Your task to perform on an android device: What's the weather going to be this weekend? Image 0: 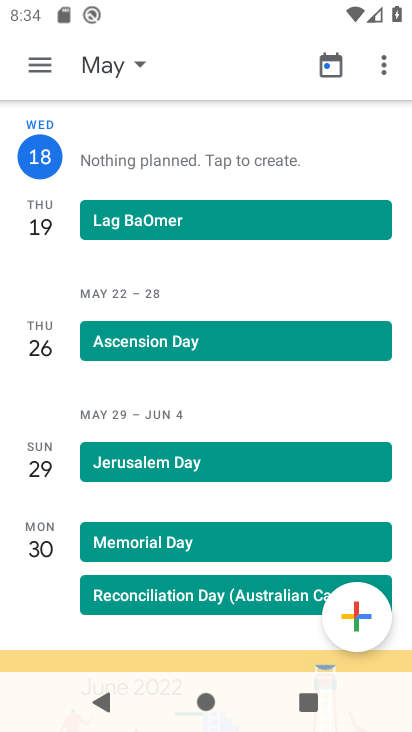
Step 0: press home button
Your task to perform on an android device: What's the weather going to be this weekend? Image 1: 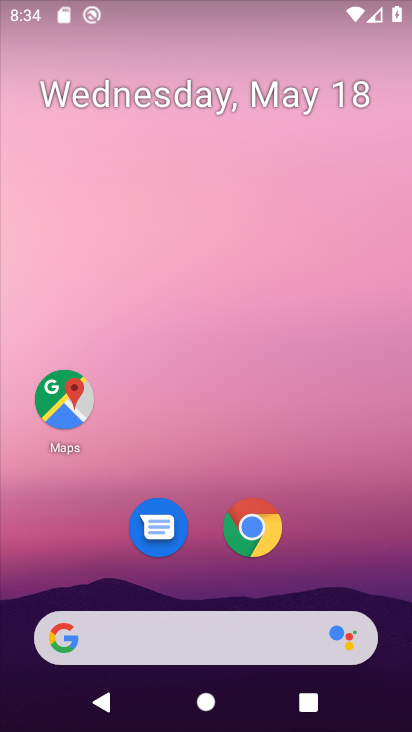
Step 1: drag from (308, 578) to (223, 1)
Your task to perform on an android device: What's the weather going to be this weekend? Image 2: 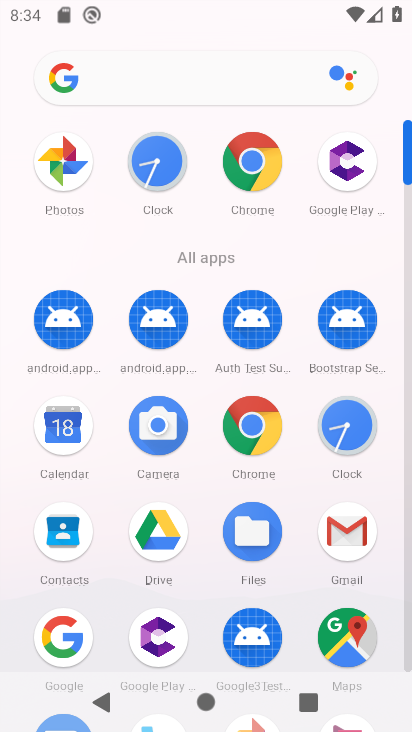
Step 2: click (70, 659)
Your task to perform on an android device: What's the weather going to be this weekend? Image 3: 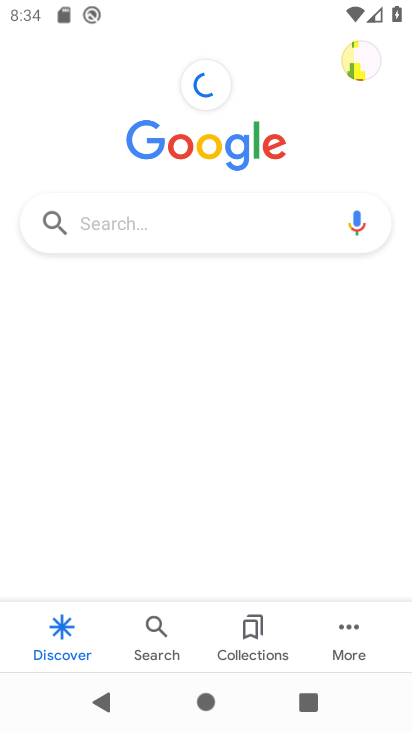
Step 3: click (154, 217)
Your task to perform on an android device: What's the weather going to be this weekend? Image 4: 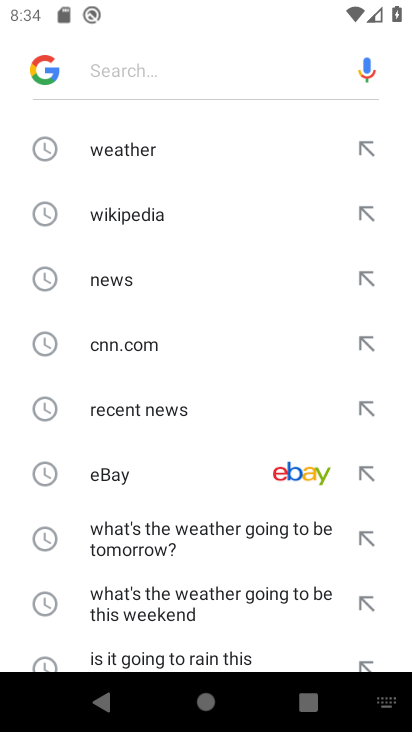
Step 4: click (135, 154)
Your task to perform on an android device: What's the weather going to be this weekend? Image 5: 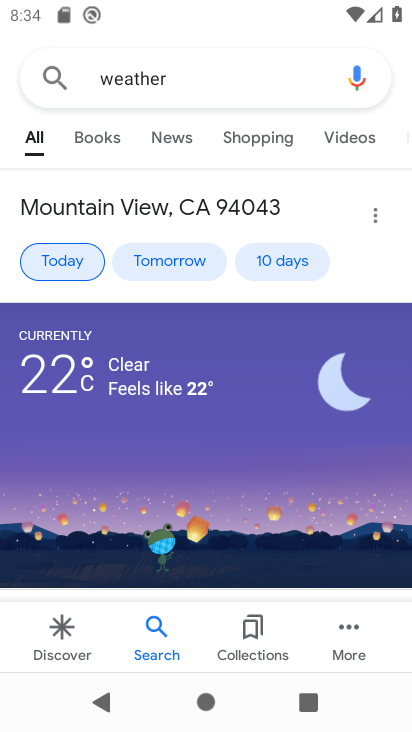
Step 5: click (196, 265)
Your task to perform on an android device: What's the weather going to be this weekend? Image 6: 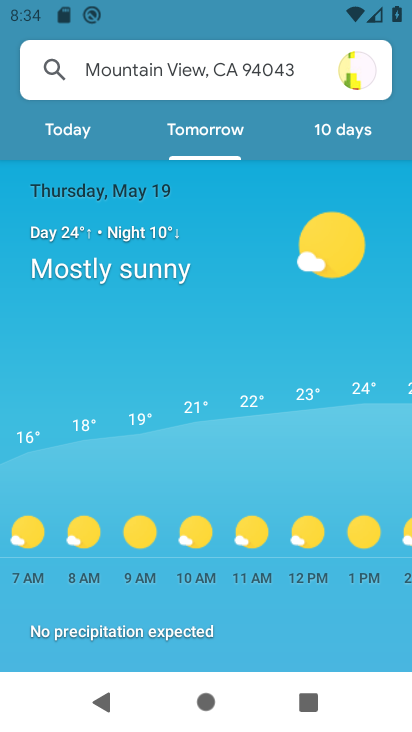
Step 6: click (355, 130)
Your task to perform on an android device: What's the weather going to be this weekend? Image 7: 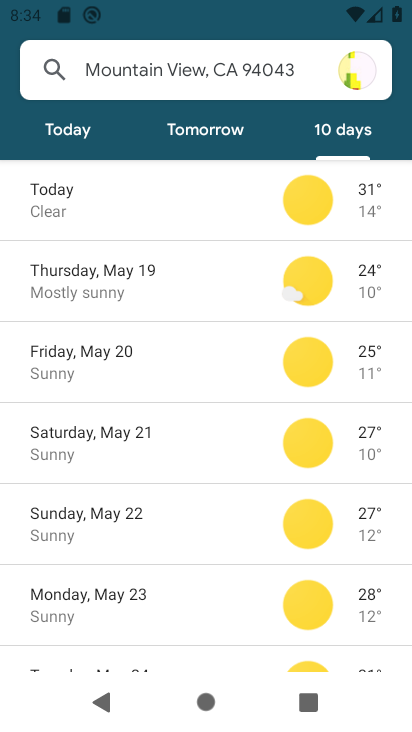
Step 7: task complete